Your task to perform on an android device: When is my next meeting? Image 0: 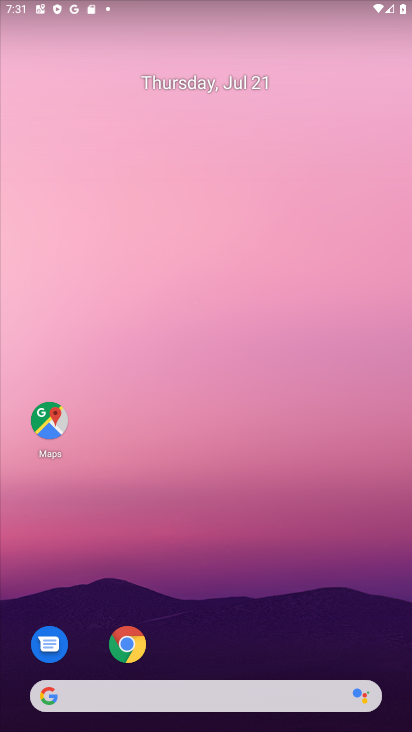
Step 0: drag from (306, 551) to (289, 142)
Your task to perform on an android device: When is my next meeting? Image 1: 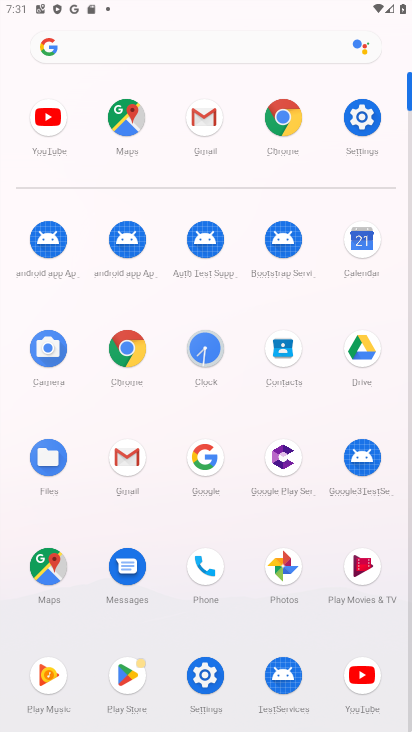
Step 1: click (362, 235)
Your task to perform on an android device: When is my next meeting? Image 2: 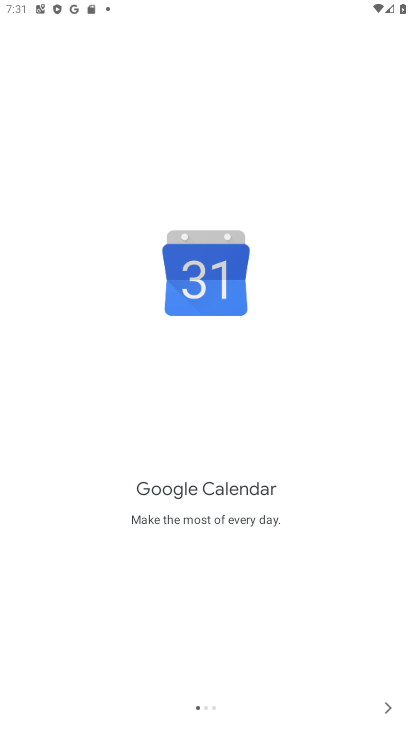
Step 2: click (386, 705)
Your task to perform on an android device: When is my next meeting? Image 3: 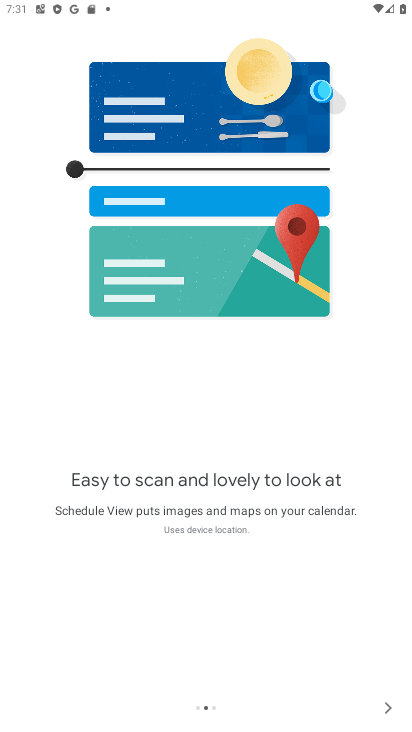
Step 3: click (386, 705)
Your task to perform on an android device: When is my next meeting? Image 4: 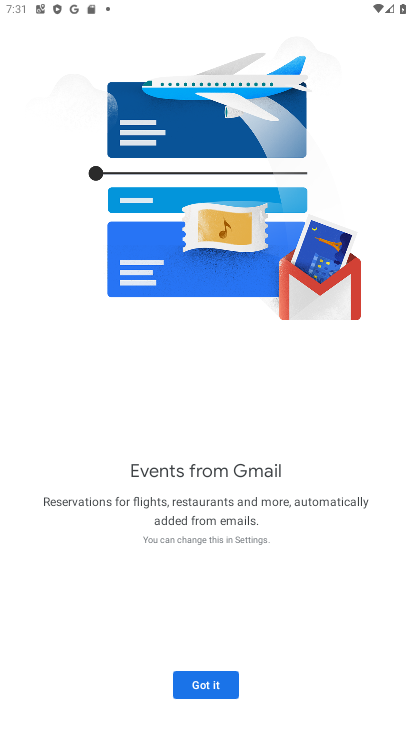
Step 4: click (386, 704)
Your task to perform on an android device: When is my next meeting? Image 5: 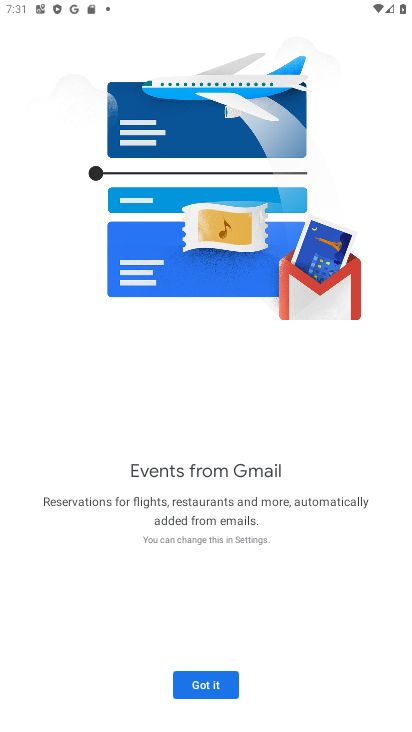
Step 5: click (214, 680)
Your task to perform on an android device: When is my next meeting? Image 6: 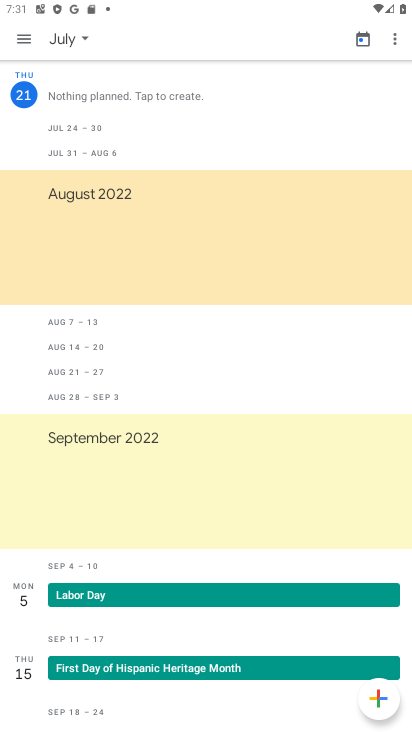
Step 6: task complete